Your task to perform on an android device: Go to internet settings Image 0: 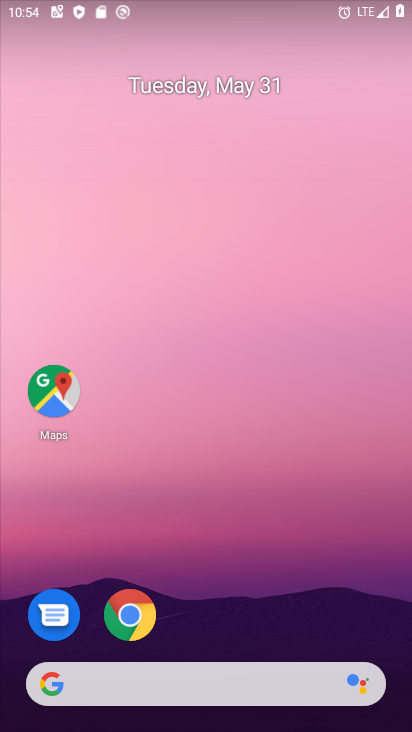
Step 0: drag from (288, 626) to (283, 12)
Your task to perform on an android device: Go to internet settings Image 1: 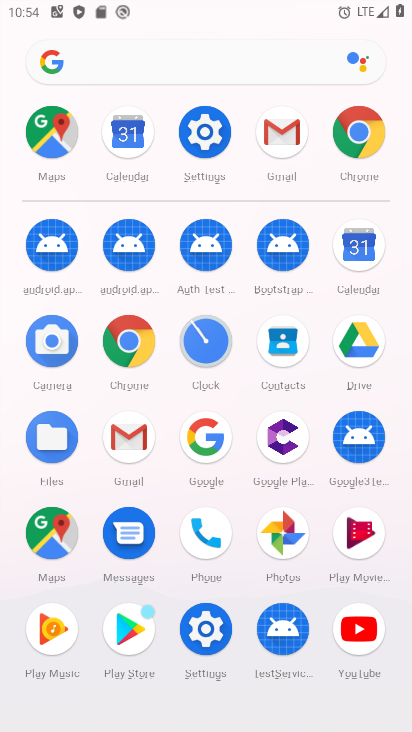
Step 1: click (211, 129)
Your task to perform on an android device: Go to internet settings Image 2: 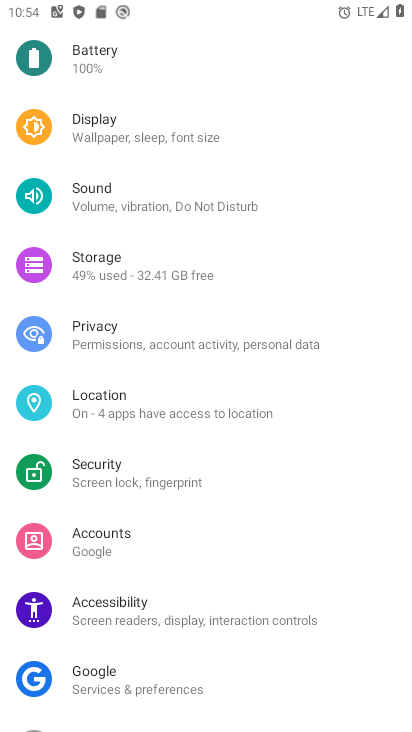
Step 2: drag from (211, 127) to (228, 608)
Your task to perform on an android device: Go to internet settings Image 3: 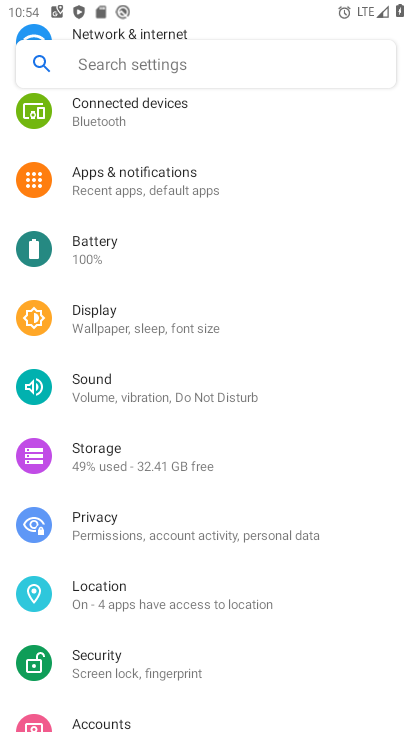
Step 3: drag from (196, 188) to (245, 673)
Your task to perform on an android device: Go to internet settings Image 4: 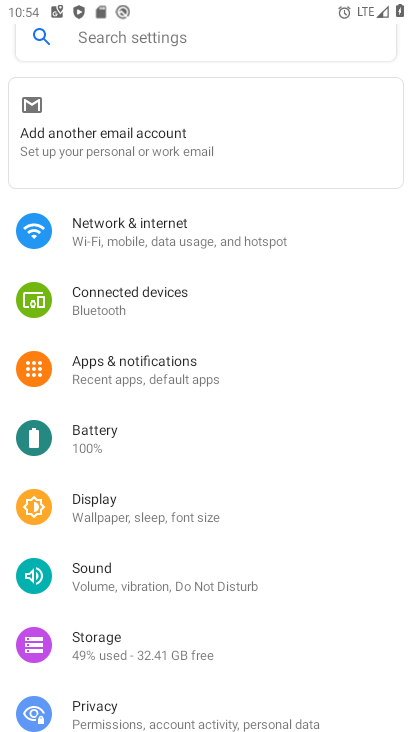
Step 4: click (134, 231)
Your task to perform on an android device: Go to internet settings Image 5: 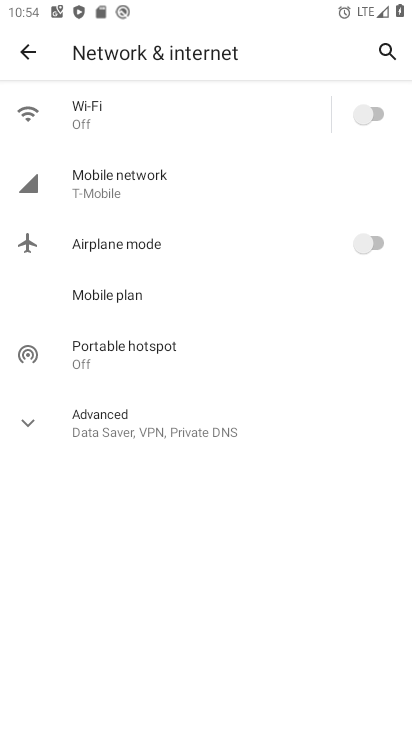
Step 5: task complete